Your task to perform on an android device: find snoozed emails in the gmail app Image 0: 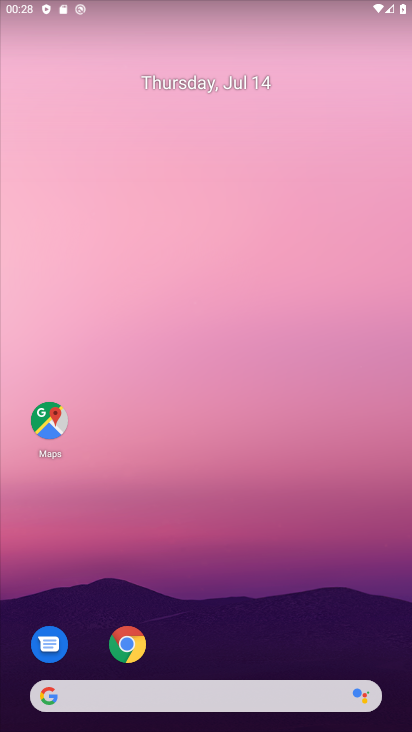
Step 0: press home button
Your task to perform on an android device: find snoozed emails in the gmail app Image 1: 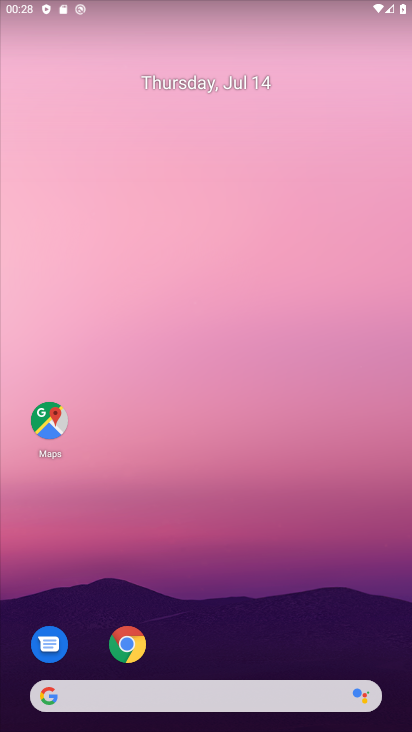
Step 1: drag from (241, 697) to (152, 252)
Your task to perform on an android device: find snoozed emails in the gmail app Image 2: 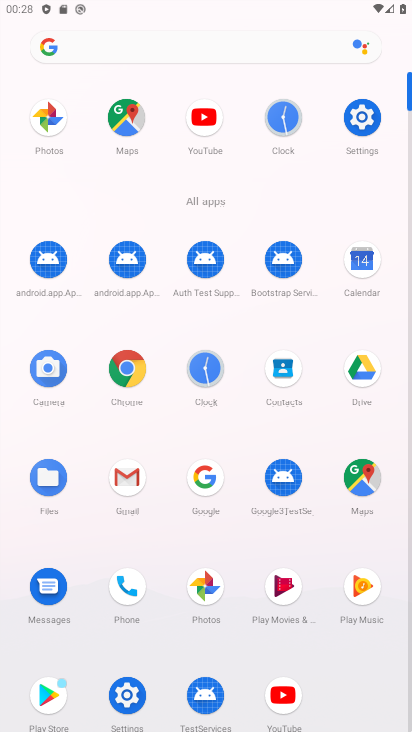
Step 2: click (135, 480)
Your task to perform on an android device: find snoozed emails in the gmail app Image 3: 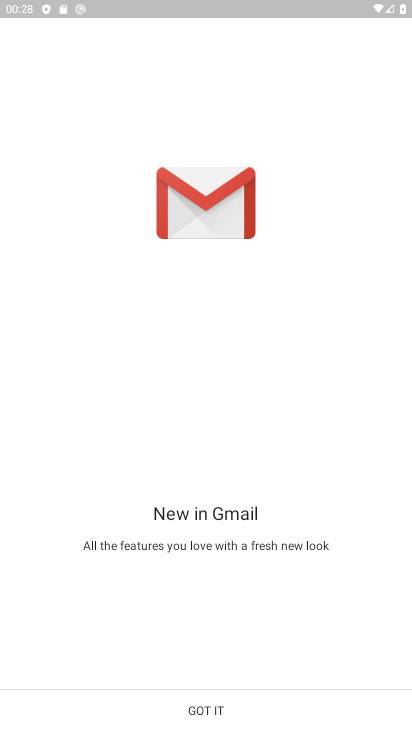
Step 3: click (209, 701)
Your task to perform on an android device: find snoozed emails in the gmail app Image 4: 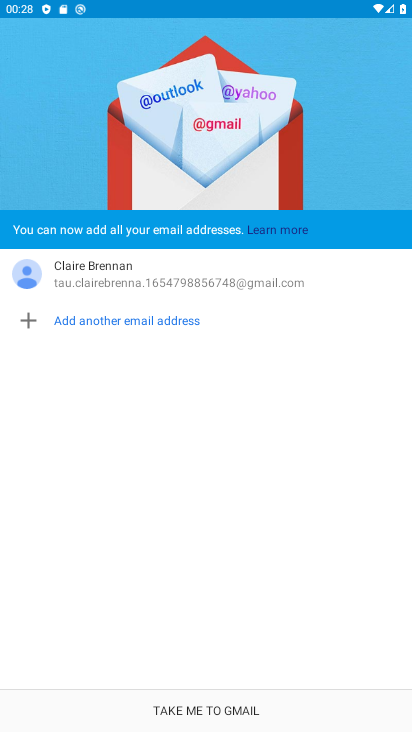
Step 4: click (201, 716)
Your task to perform on an android device: find snoozed emails in the gmail app Image 5: 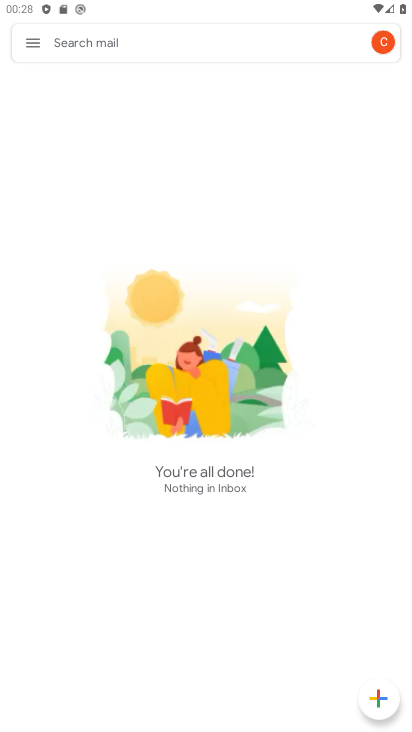
Step 5: click (20, 44)
Your task to perform on an android device: find snoozed emails in the gmail app Image 6: 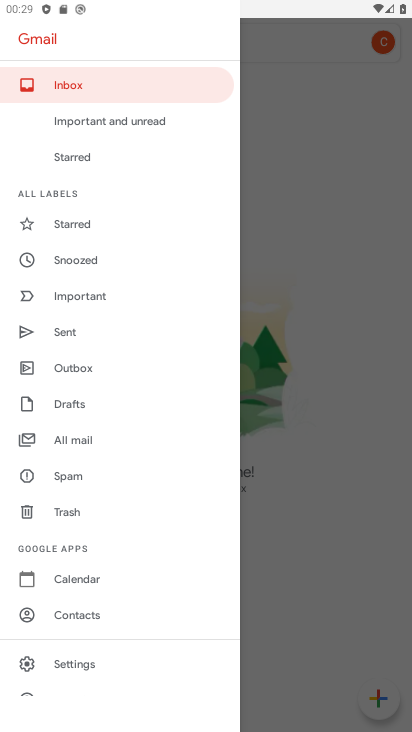
Step 6: click (79, 225)
Your task to perform on an android device: find snoozed emails in the gmail app Image 7: 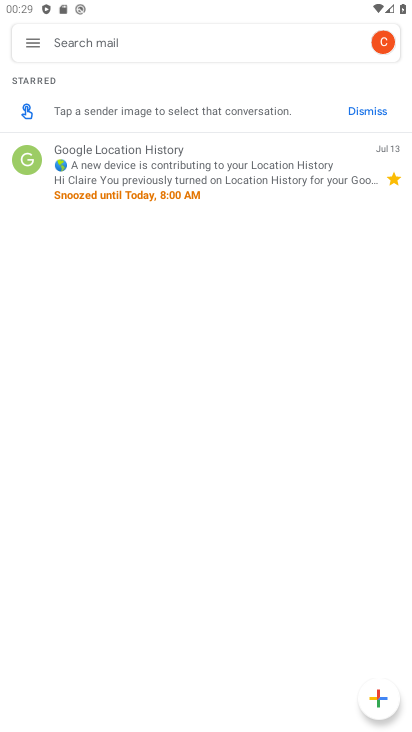
Step 7: click (33, 54)
Your task to perform on an android device: find snoozed emails in the gmail app Image 8: 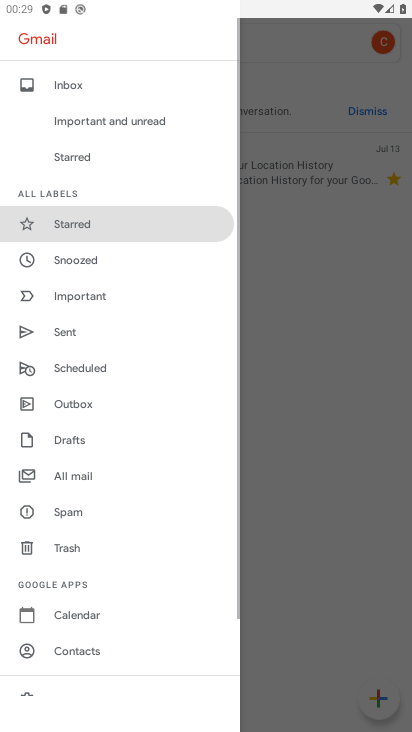
Step 8: click (86, 254)
Your task to perform on an android device: find snoozed emails in the gmail app Image 9: 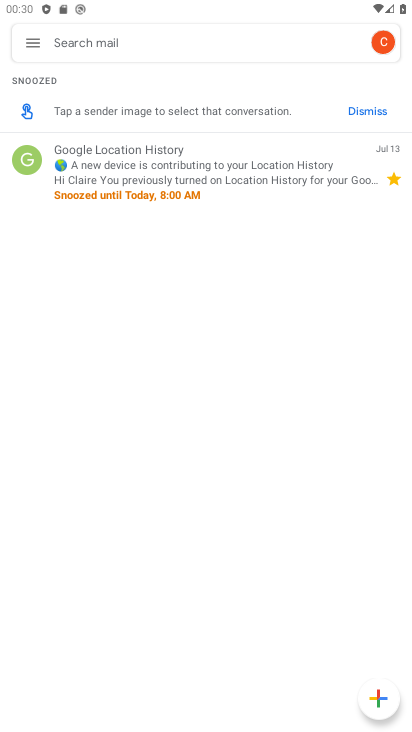
Step 9: task complete